Your task to perform on an android device: remove spam from my inbox in the gmail app Image 0: 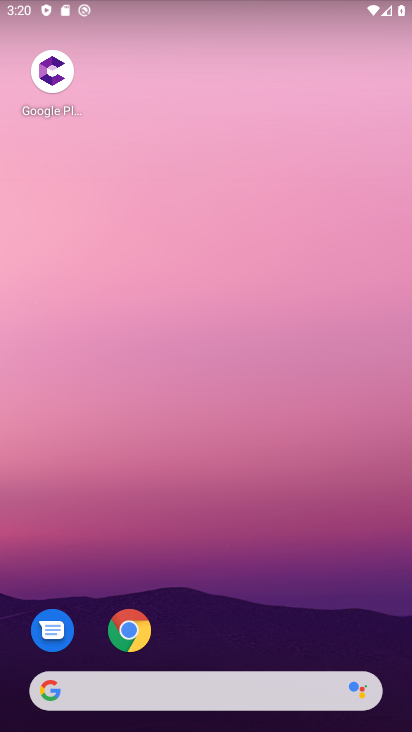
Step 0: drag from (217, 660) to (190, 14)
Your task to perform on an android device: remove spam from my inbox in the gmail app Image 1: 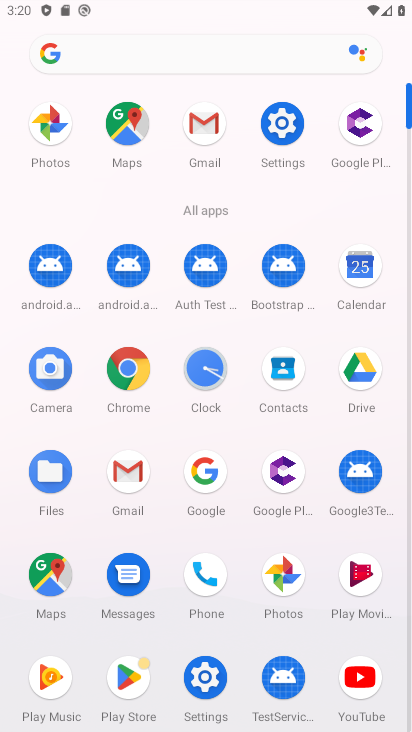
Step 1: click (133, 469)
Your task to perform on an android device: remove spam from my inbox in the gmail app Image 2: 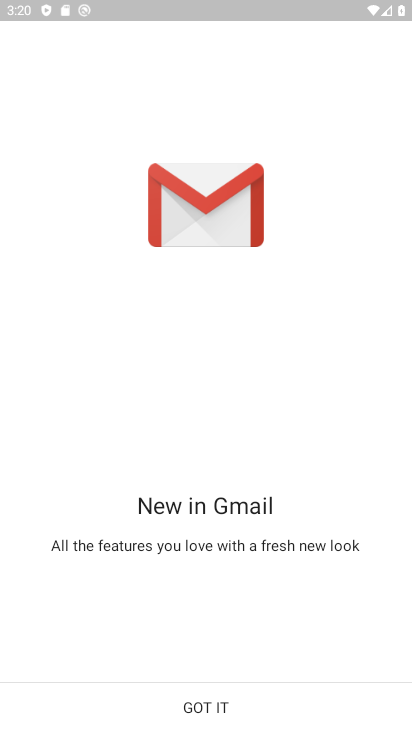
Step 2: click (248, 711)
Your task to perform on an android device: remove spam from my inbox in the gmail app Image 3: 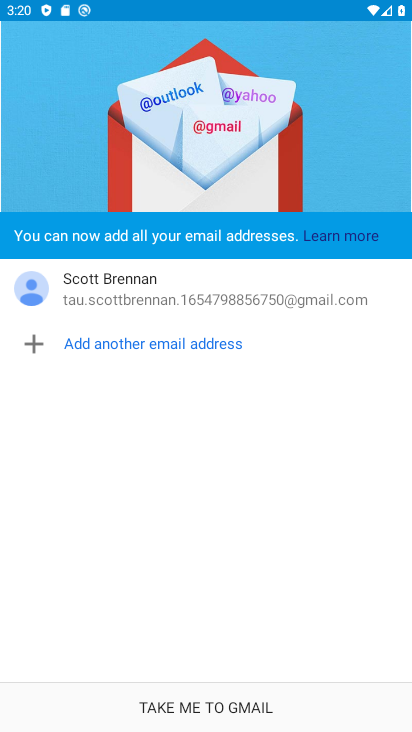
Step 3: click (248, 711)
Your task to perform on an android device: remove spam from my inbox in the gmail app Image 4: 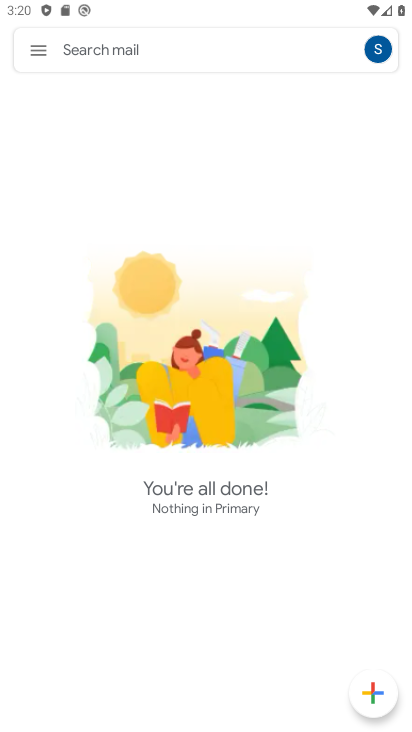
Step 4: click (40, 50)
Your task to perform on an android device: remove spam from my inbox in the gmail app Image 5: 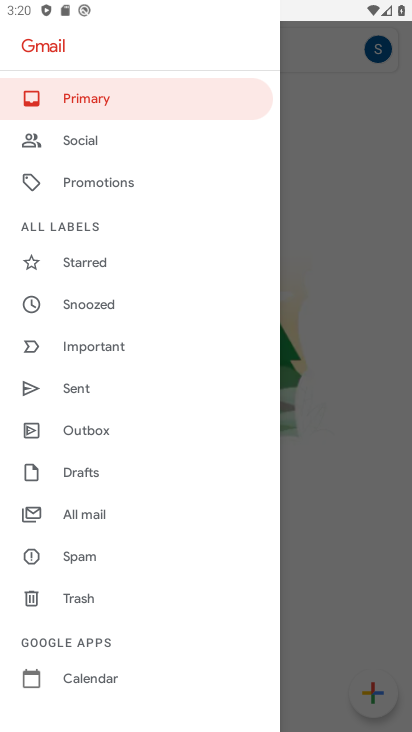
Step 5: click (94, 554)
Your task to perform on an android device: remove spam from my inbox in the gmail app Image 6: 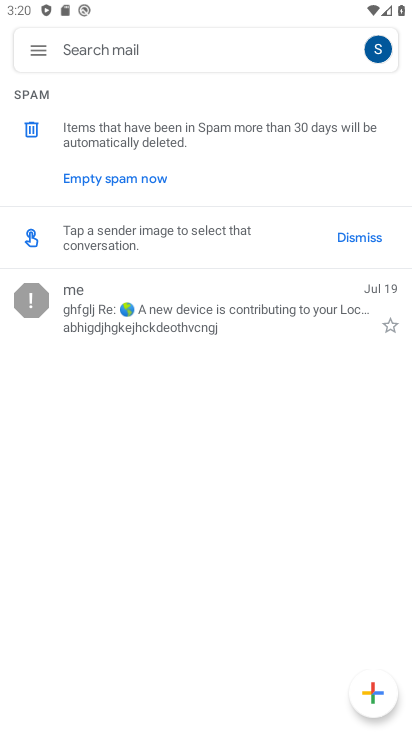
Step 6: click (37, 285)
Your task to perform on an android device: remove spam from my inbox in the gmail app Image 7: 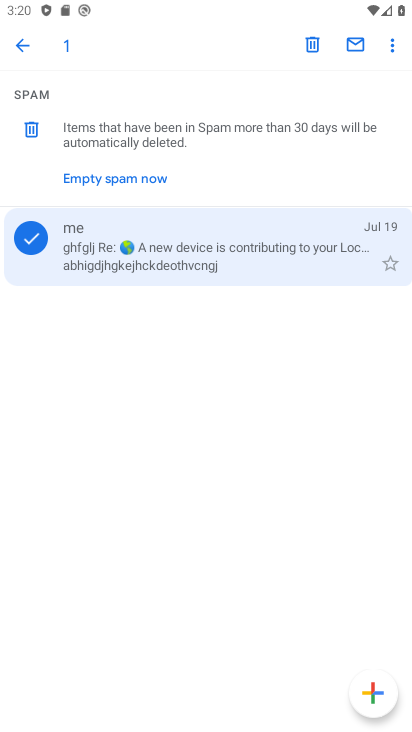
Step 7: click (314, 46)
Your task to perform on an android device: remove spam from my inbox in the gmail app Image 8: 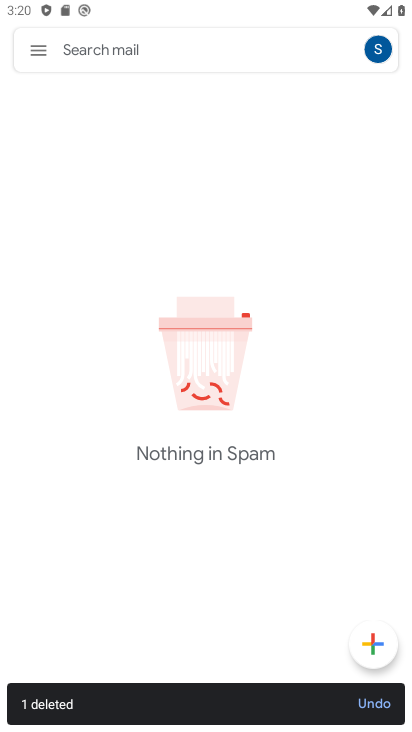
Step 8: task complete